Your task to perform on an android device: turn off javascript in the chrome app Image 0: 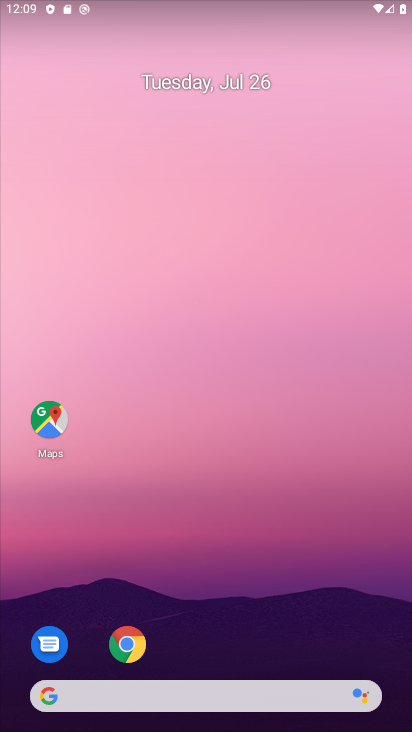
Step 0: drag from (303, 637) to (275, 233)
Your task to perform on an android device: turn off javascript in the chrome app Image 1: 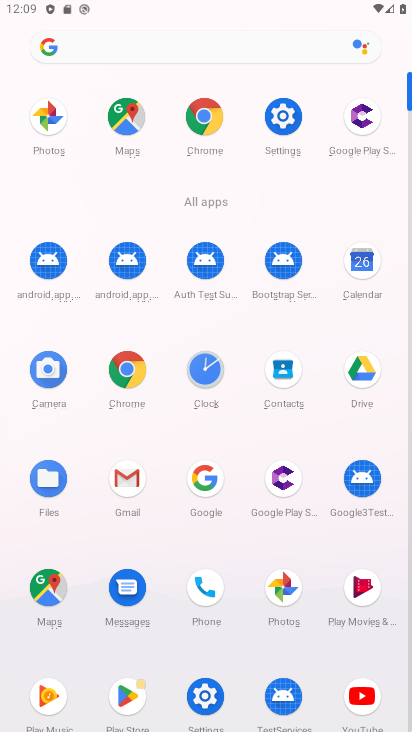
Step 1: click (211, 112)
Your task to perform on an android device: turn off javascript in the chrome app Image 2: 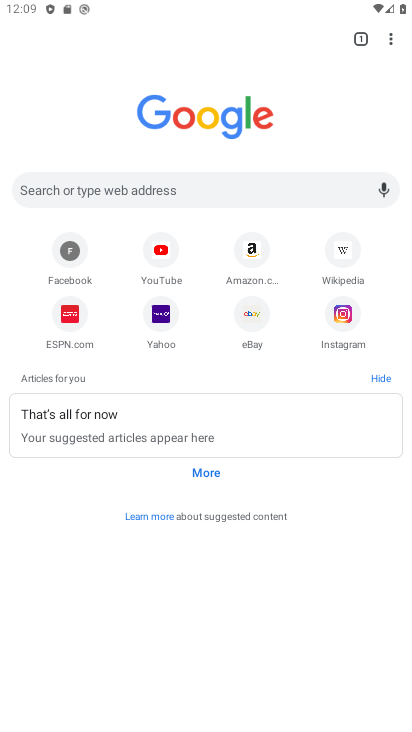
Step 2: click (398, 37)
Your task to perform on an android device: turn off javascript in the chrome app Image 3: 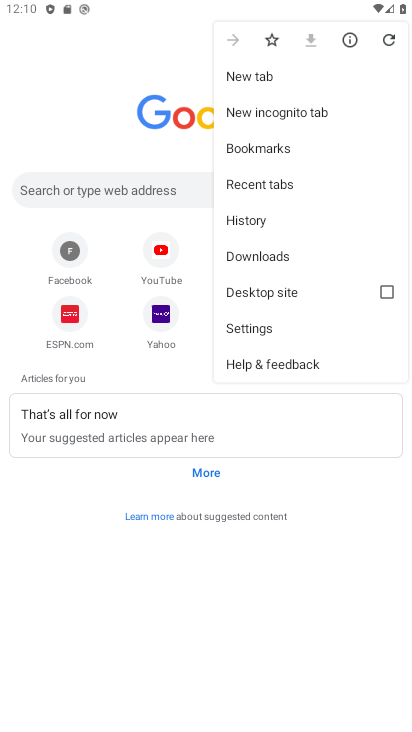
Step 3: click (280, 333)
Your task to perform on an android device: turn off javascript in the chrome app Image 4: 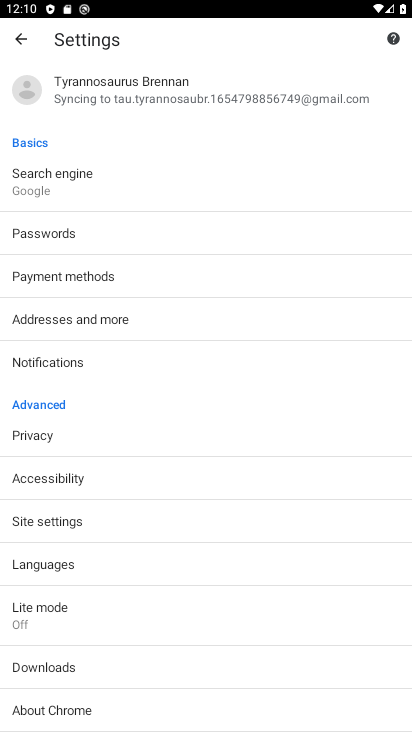
Step 4: click (126, 521)
Your task to perform on an android device: turn off javascript in the chrome app Image 5: 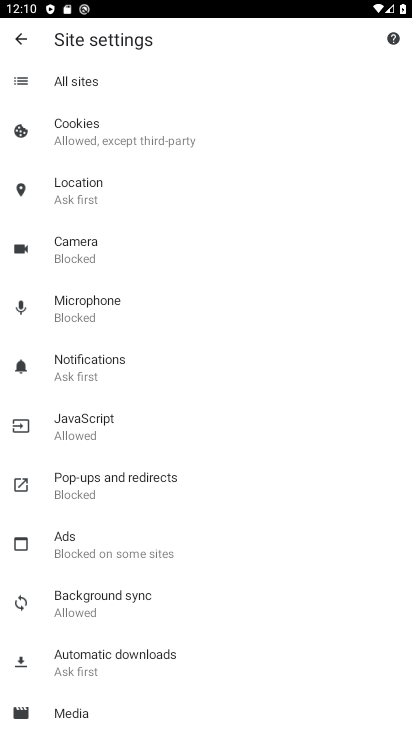
Step 5: click (187, 488)
Your task to perform on an android device: turn off javascript in the chrome app Image 6: 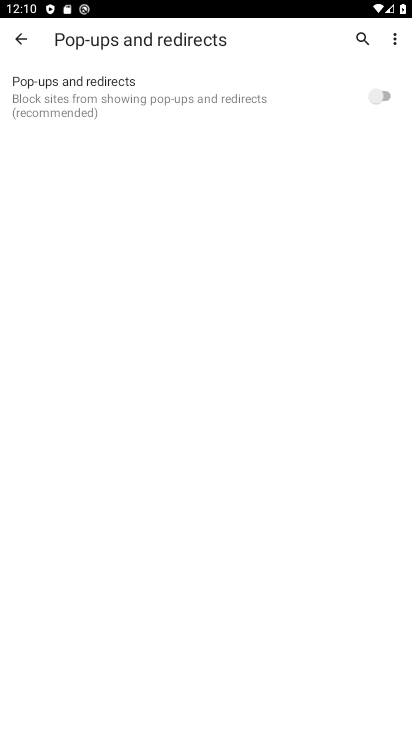
Step 6: click (32, 43)
Your task to perform on an android device: turn off javascript in the chrome app Image 7: 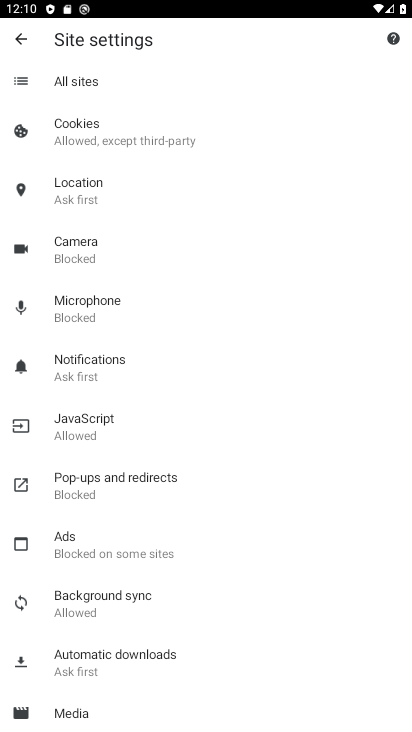
Step 7: click (153, 422)
Your task to perform on an android device: turn off javascript in the chrome app Image 8: 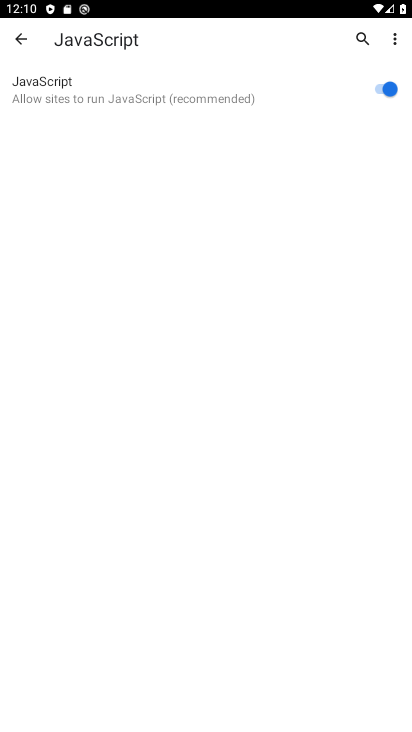
Step 8: click (384, 92)
Your task to perform on an android device: turn off javascript in the chrome app Image 9: 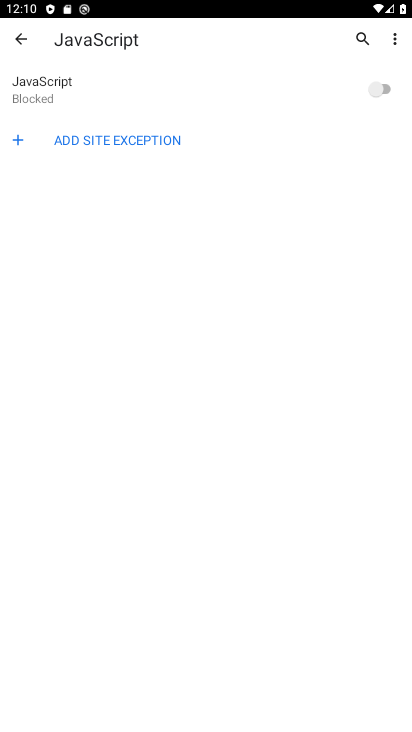
Step 9: task complete